Your task to perform on an android device: change the clock display to show seconds Image 0: 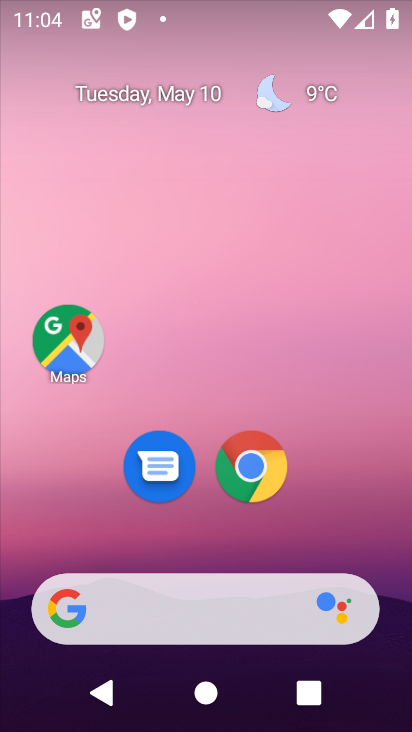
Step 0: drag from (306, 553) to (275, 64)
Your task to perform on an android device: change the clock display to show seconds Image 1: 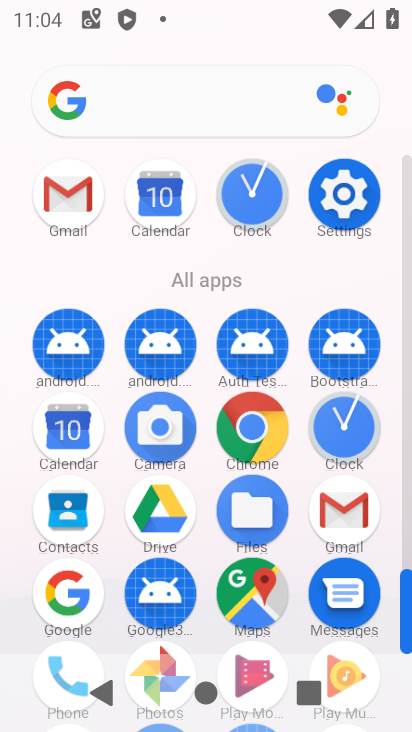
Step 1: click (329, 422)
Your task to perform on an android device: change the clock display to show seconds Image 2: 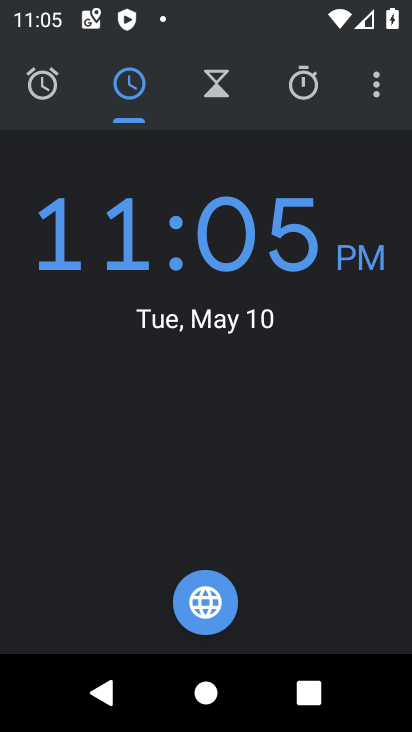
Step 2: click (381, 91)
Your task to perform on an android device: change the clock display to show seconds Image 3: 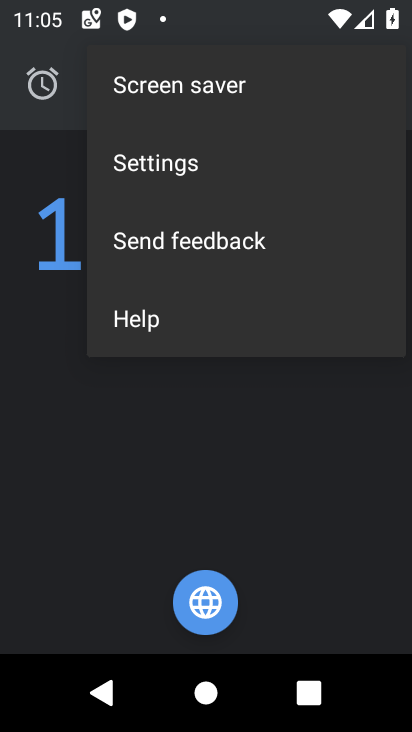
Step 3: click (353, 171)
Your task to perform on an android device: change the clock display to show seconds Image 4: 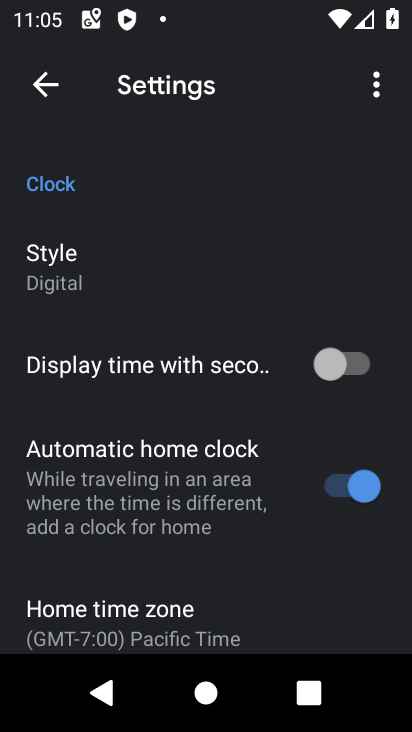
Step 4: click (338, 377)
Your task to perform on an android device: change the clock display to show seconds Image 5: 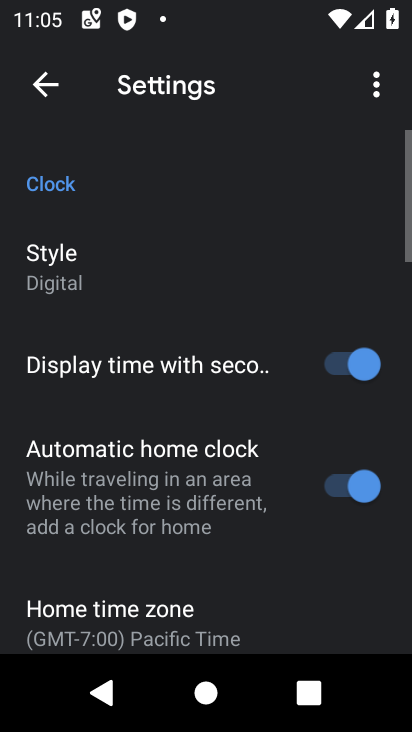
Step 5: task complete